Your task to perform on an android device: Go to sound settings Image 0: 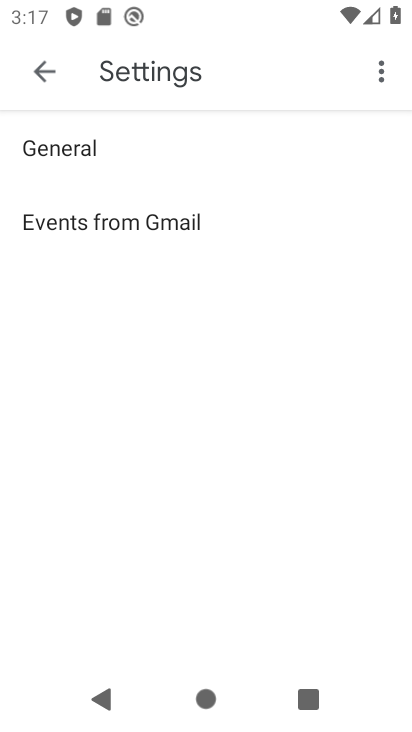
Step 0: press home button
Your task to perform on an android device: Go to sound settings Image 1: 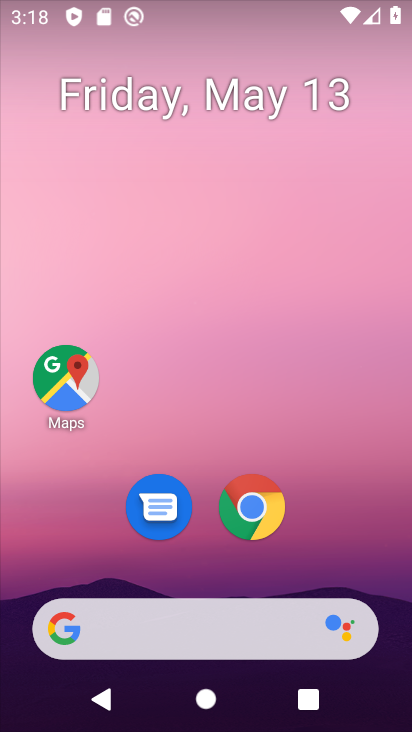
Step 1: drag from (366, 514) to (297, 22)
Your task to perform on an android device: Go to sound settings Image 2: 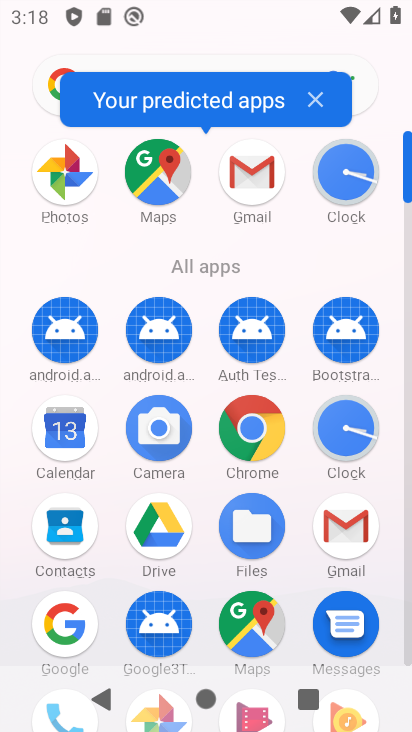
Step 2: drag from (374, 550) to (359, 236)
Your task to perform on an android device: Go to sound settings Image 3: 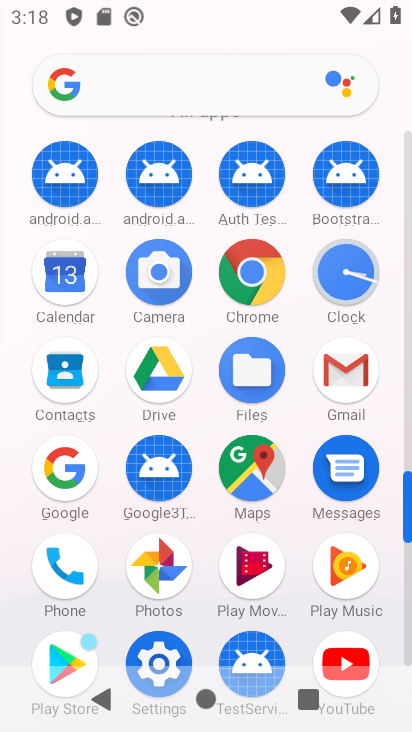
Step 3: drag from (395, 570) to (406, 357)
Your task to perform on an android device: Go to sound settings Image 4: 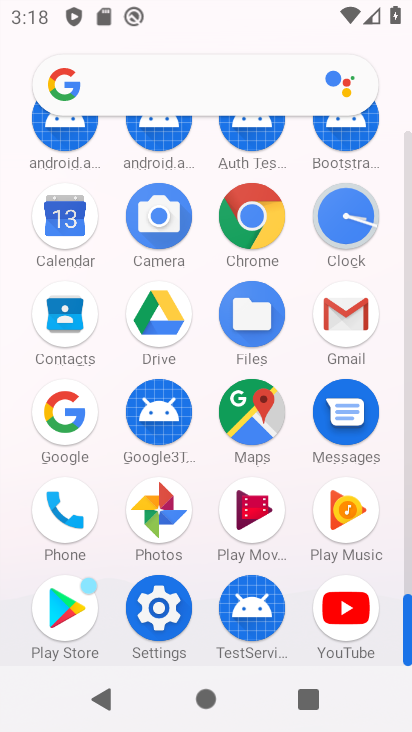
Step 4: click (170, 614)
Your task to perform on an android device: Go to sound settings Image 5: 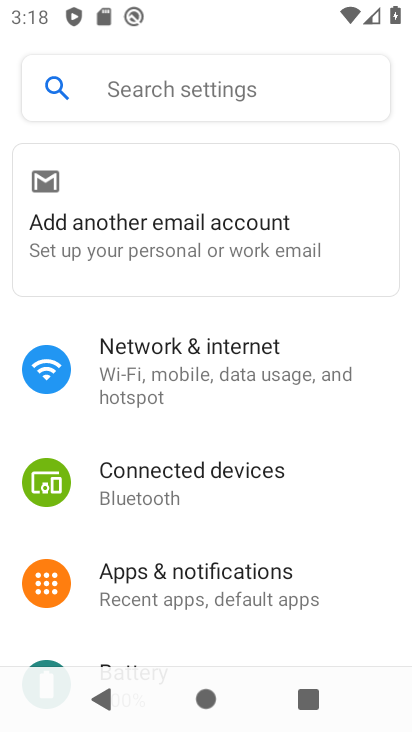
Step 5: drag from (171, 592) to (248, 191)
Your task to perform on an android device: Go to sound settings Image 6: 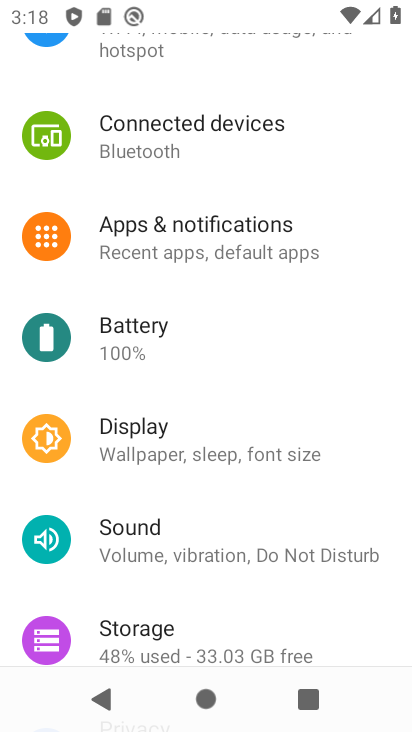
Step 6: click (174, 532)
Your task to perform on an android device: Go to sound settings Image 7: 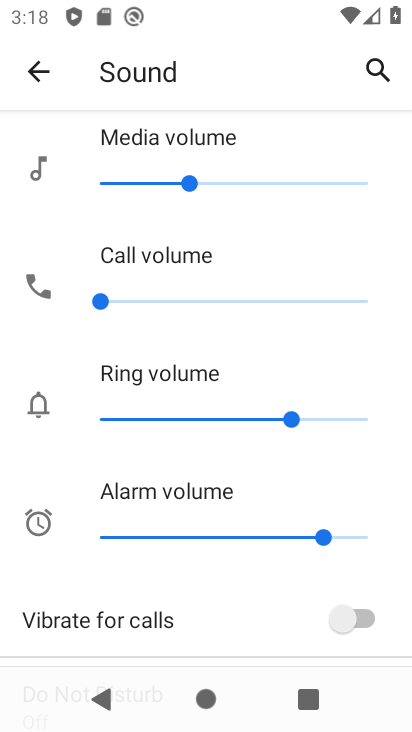
Step 7: task complete